Your task to perform on an android device: visit the assistant section in the google photos Image 0: 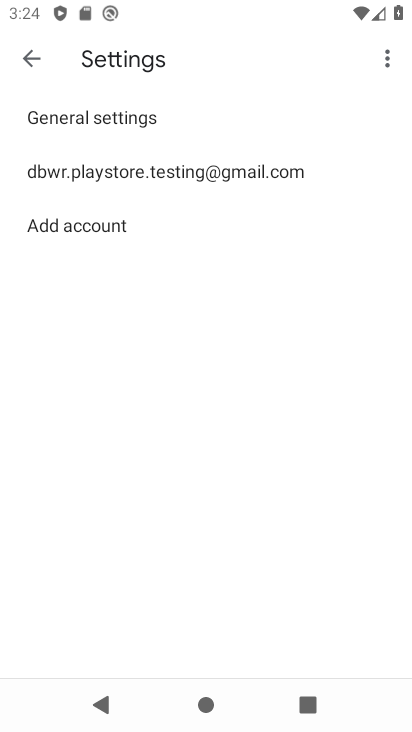
Step 0: press home button
Your task to perform on an android device: visit the assistant section in the google photos Image 1: 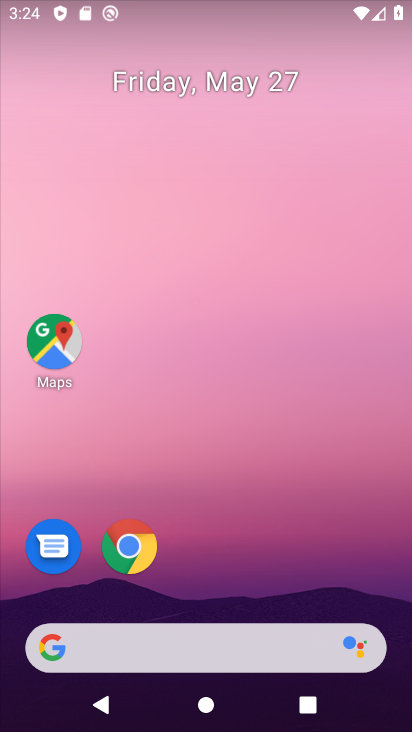
Step 1: drag from (391, 679) to (334, 202)
Your task to perform on an android device: visit the assistant section in the google photos Image 2: 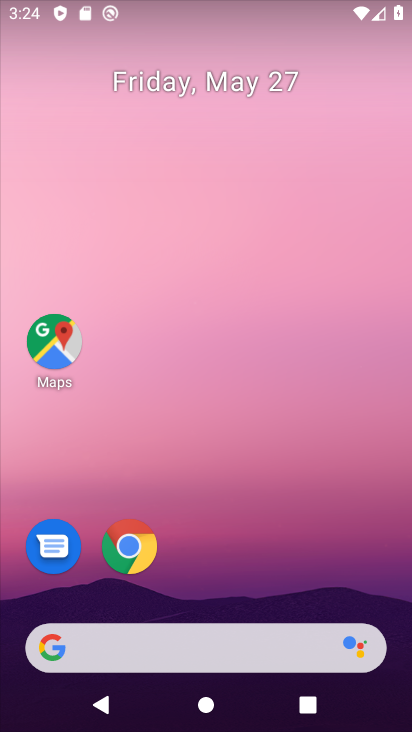
Step 2: drag from (399, 661) to (370, 172)
Your task to perform on an android device: visit the assistant section in the google photos Image 3: 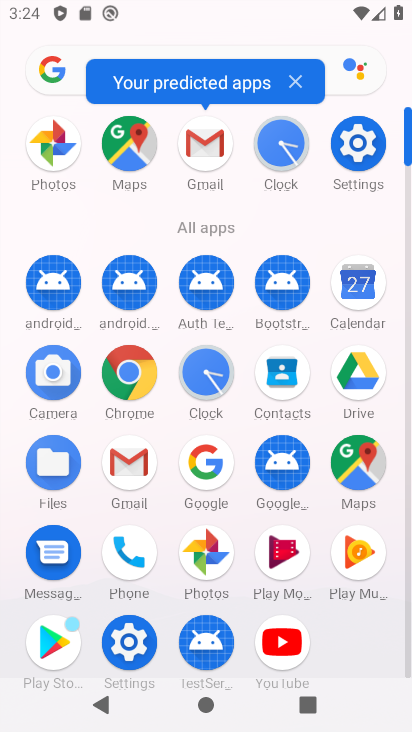
Step 3: click (203, 554)
Your task to perform on an android device: visit the assistant section in the google photos Image 4: 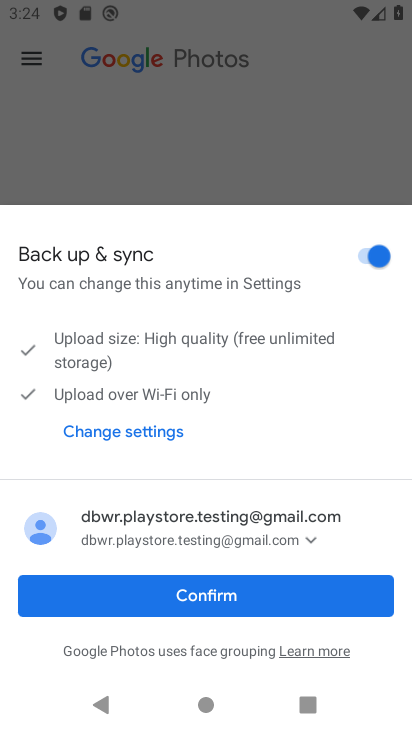
Step 4: click (223, 600)
Your task to perform on an android device: visit the assistant section in the google photos Image 5: 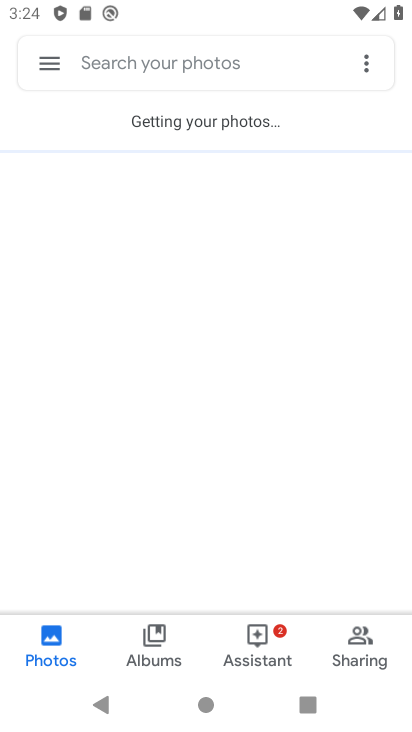
Step 5: click (245, 644)
Your task to perform on an android device: visit the assistant section in the google photos Image 6: 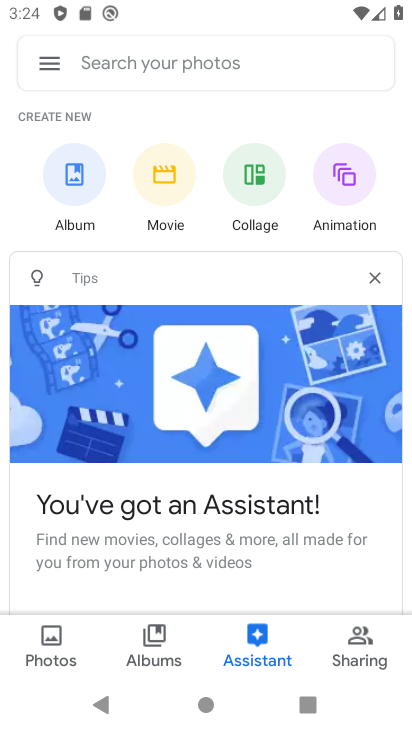
Step 6: task complete